Your task to perform on an android device: Open Android settings Image 0: 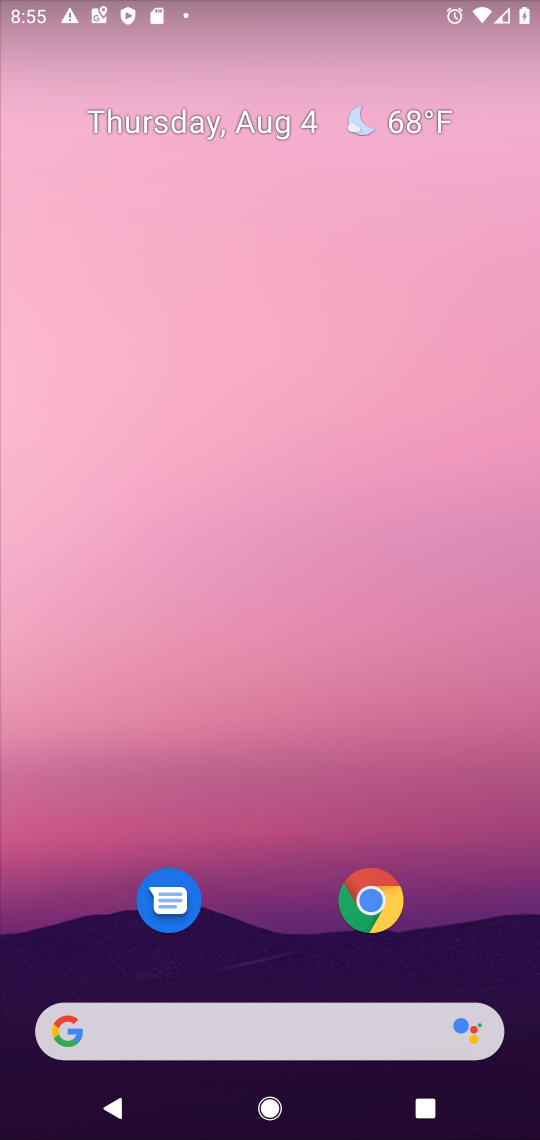
Step 0: drag from (312, 1030) to (341, 183)
Your task to perform on an android device: Open Android settings Image 1: 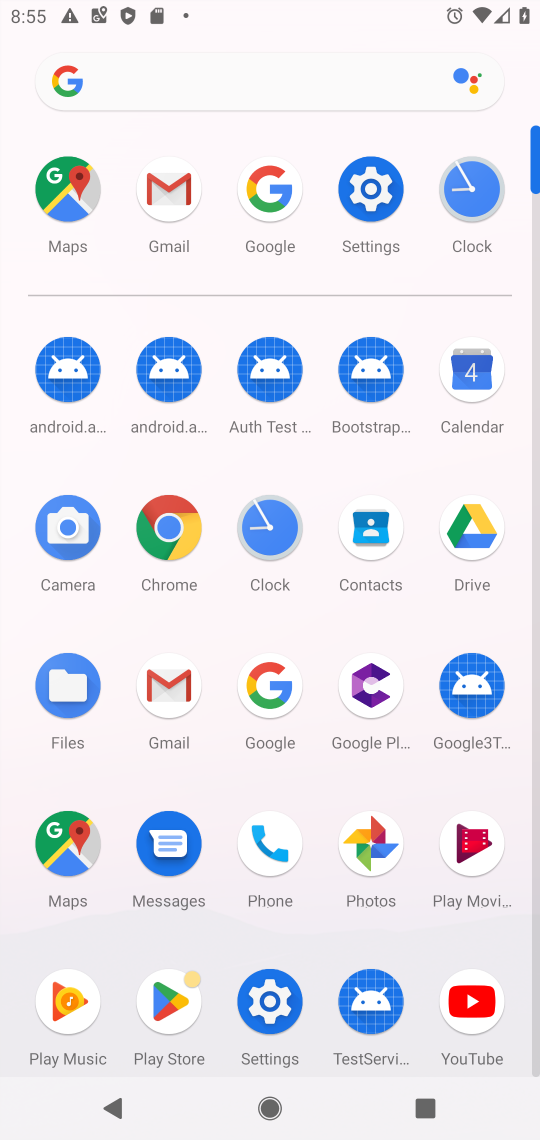
Step 1: click (371, 187)
Your task to perform on an android device: Open Android settings Image 2: 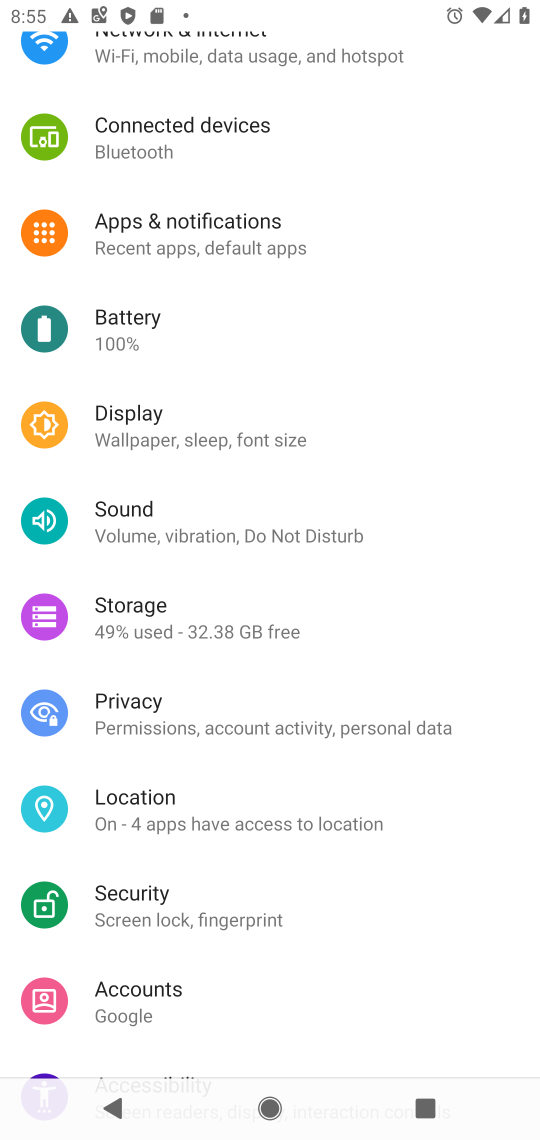
Step 2: task complete